Your task to perform on an android device: turn off picture-in-picture Image 0: 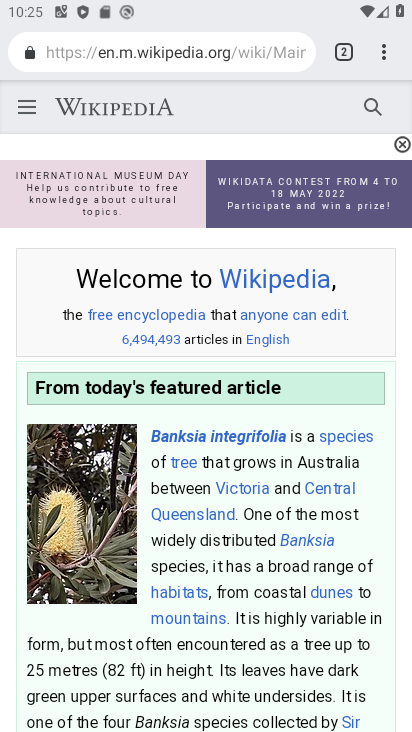
Step 0: press home button
Your task to perform on an android device: turn off picture-in-picture Image 1: 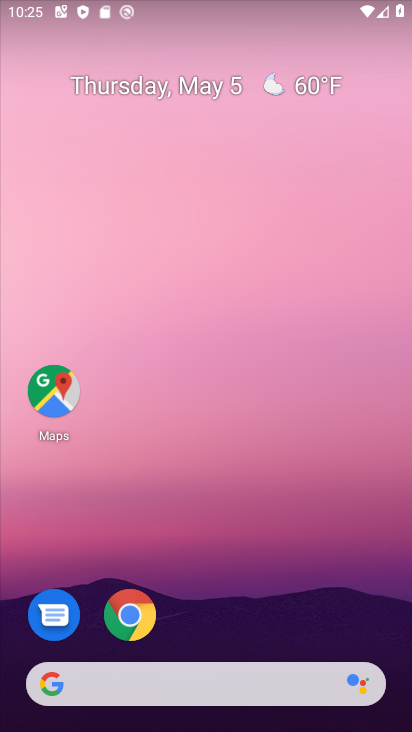
Step 1: click (128, 608)
Your task to perform on an android device: turn off picture-in-picture Image 2: 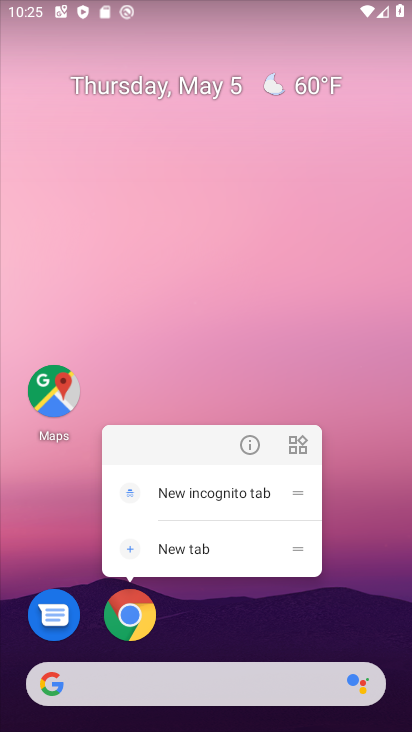
Step 2: click (247, 446)
Your task to perform on an android device: turn off picture-in-picture Image 3: 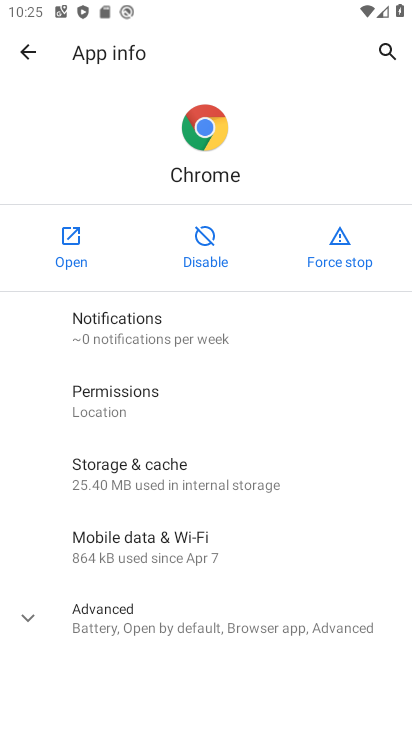
Step 3: click (105, 625)
Your task to perform on an android device: turn off picture-in-picture Image 4: 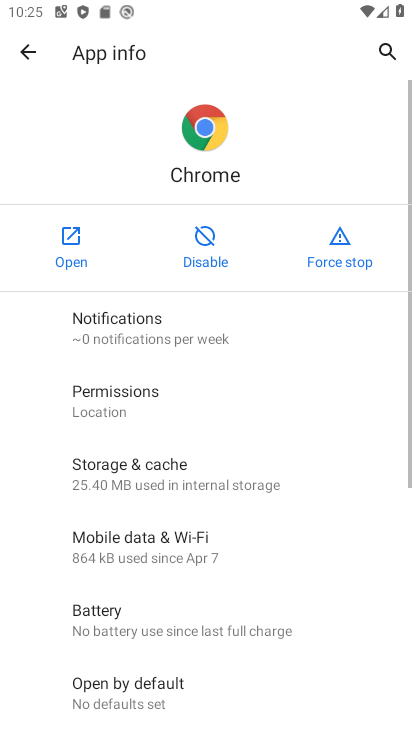
Step 4: drag from (230, 638) to (307, 61)
Your task to perform on an android device: turn off picture-in-picture Image 5: 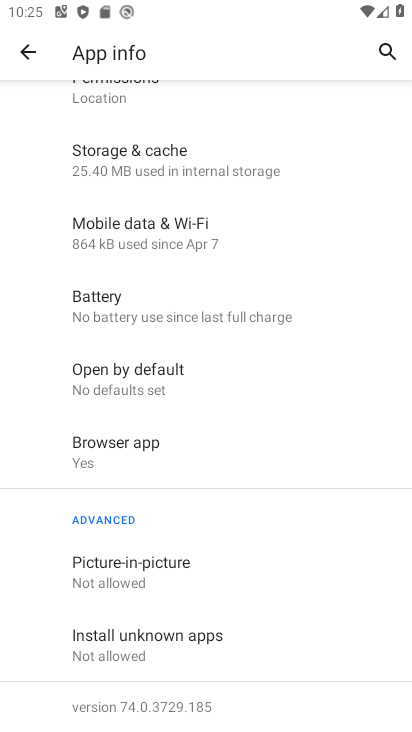
Step 5: click (119, 586)
Your task to perform on an android device: turn off picture-in-picture Image 6: 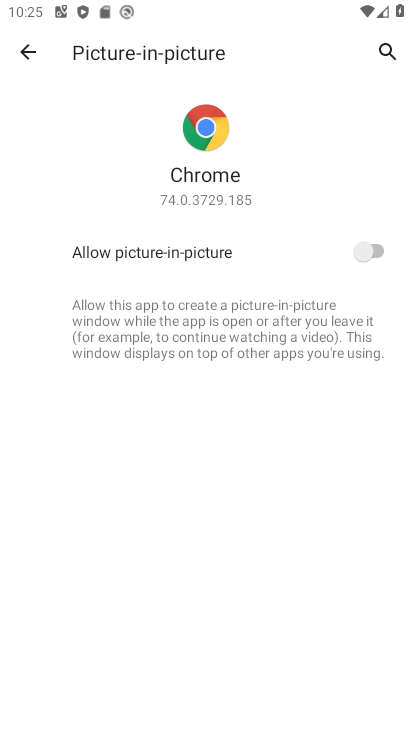
Step 6: task complete